Your task to perform on an android device: open the mobile data screen to see how much data has been used Image 0: 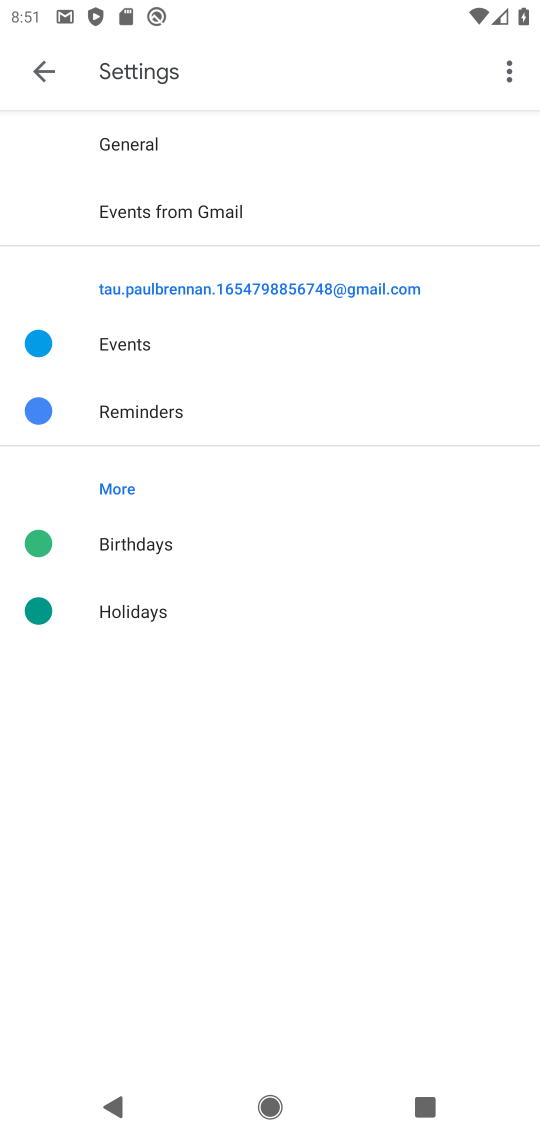
Step 0: press home button
Your task to perform on an android device: open the mobile data screen to see how much data has been used Image 1: 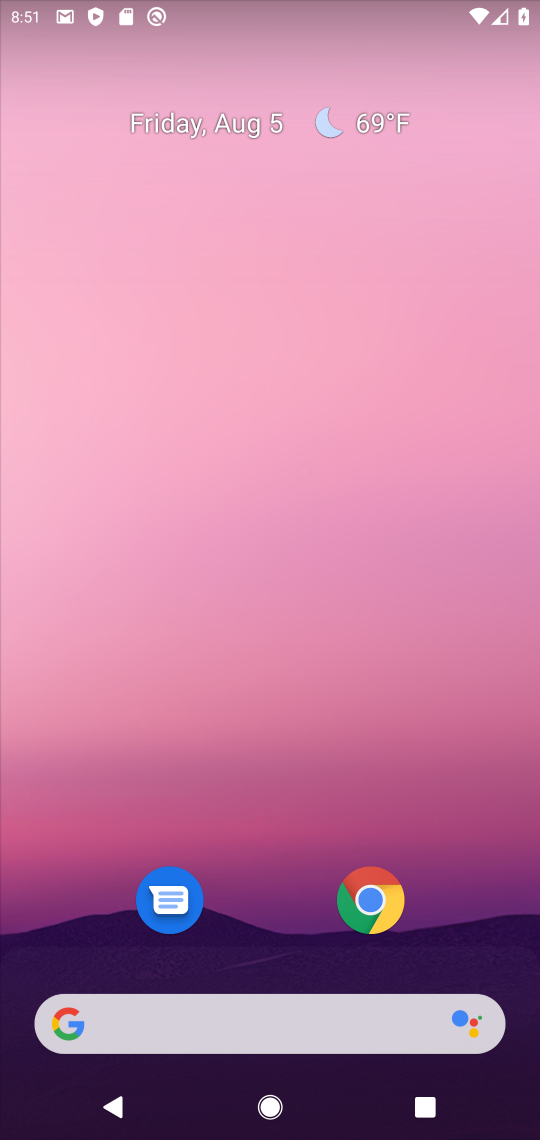
Step 1: drag from (285, 1026) to (331, 491)
Your task to perform on an android device: open the mobile data screen to see how much data has been used Image 2: 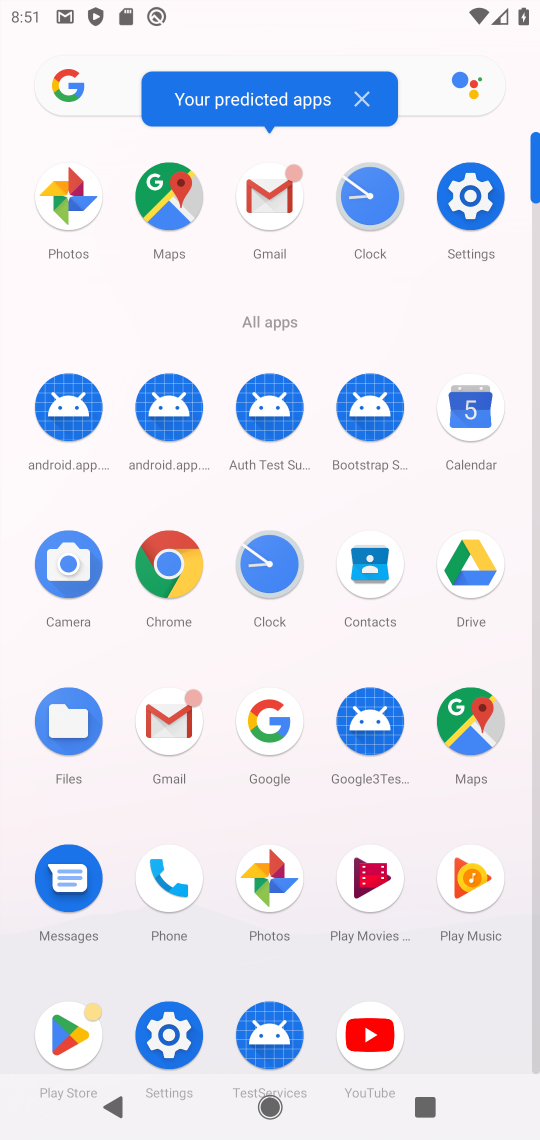
Step 2: click (482, 218)
Your task to perform on an android device: open the mobile data screen to see how much data has been used Image 3: 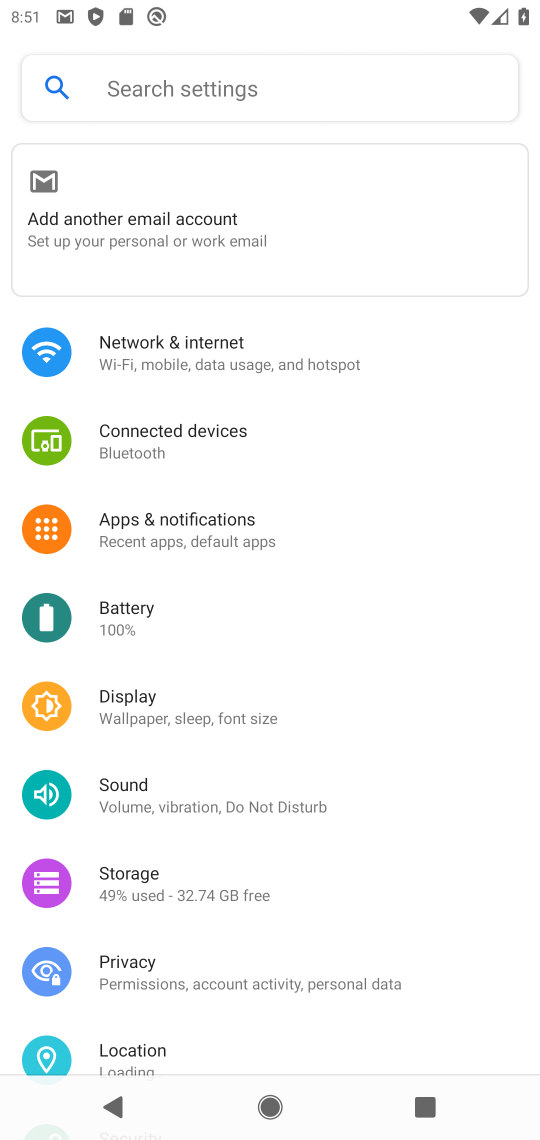
Step 3: click (264, 370)
Your task to perform on an android device: open the mobile data screen to see how much data has been used Image 4: 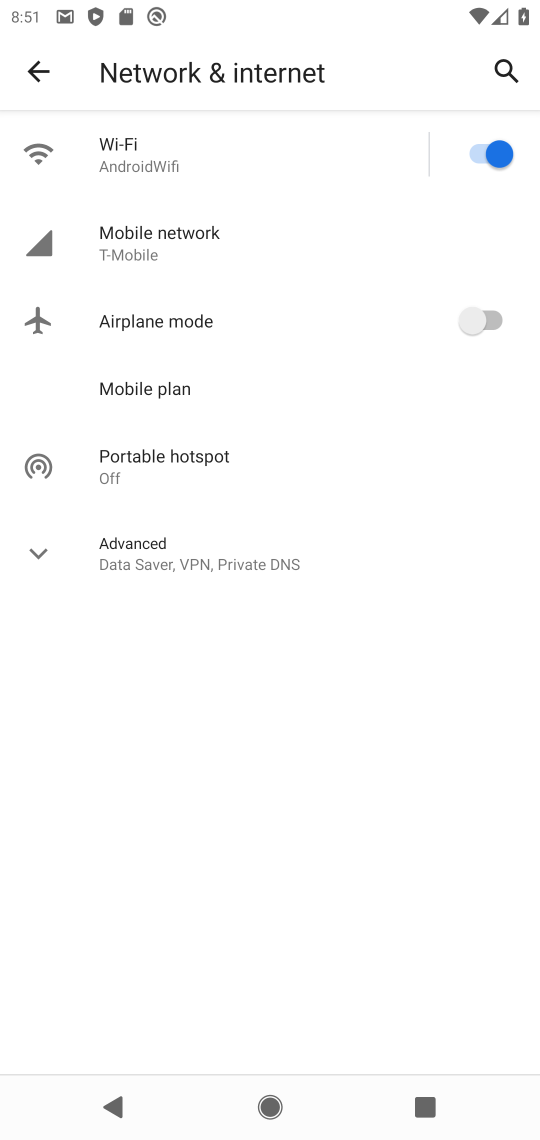
Step 4: click (180, 242)
Your task to perform on an android device: open the mobile data screen to see how much data has been used Image 5: 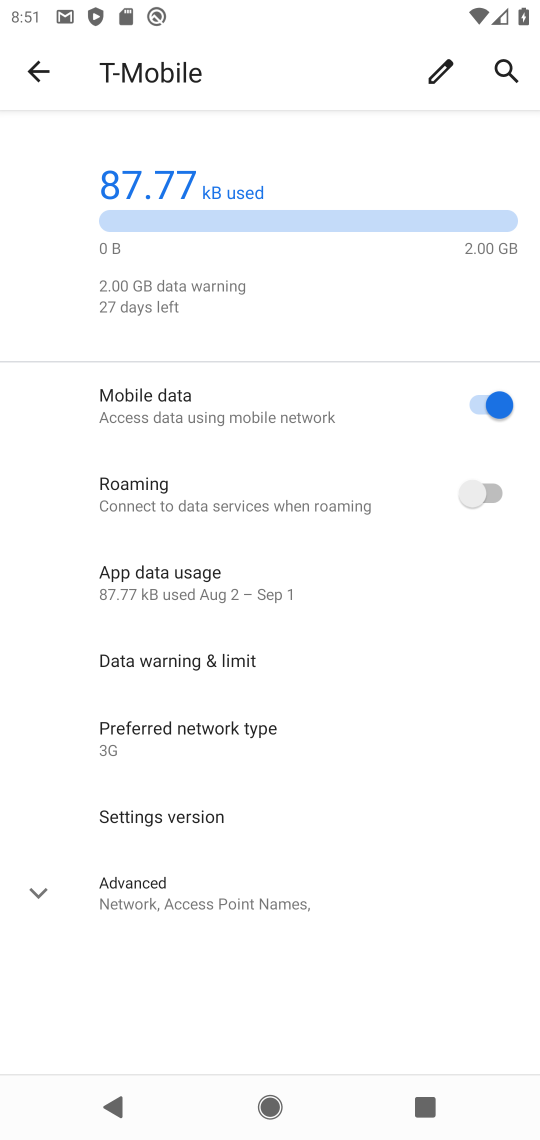
Step 5: task complete